Your task to perform on an android device: uninstall "Airtel Thanks" Image 0: 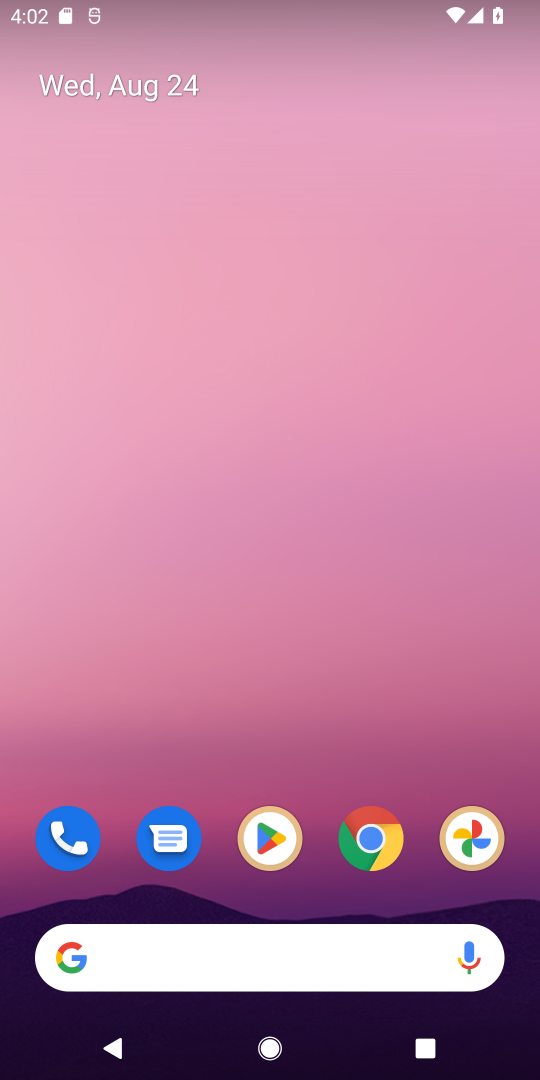
Step 0: press home button
Your task to perform on an android device: uninstall "Airtel Thanks" Image 1: 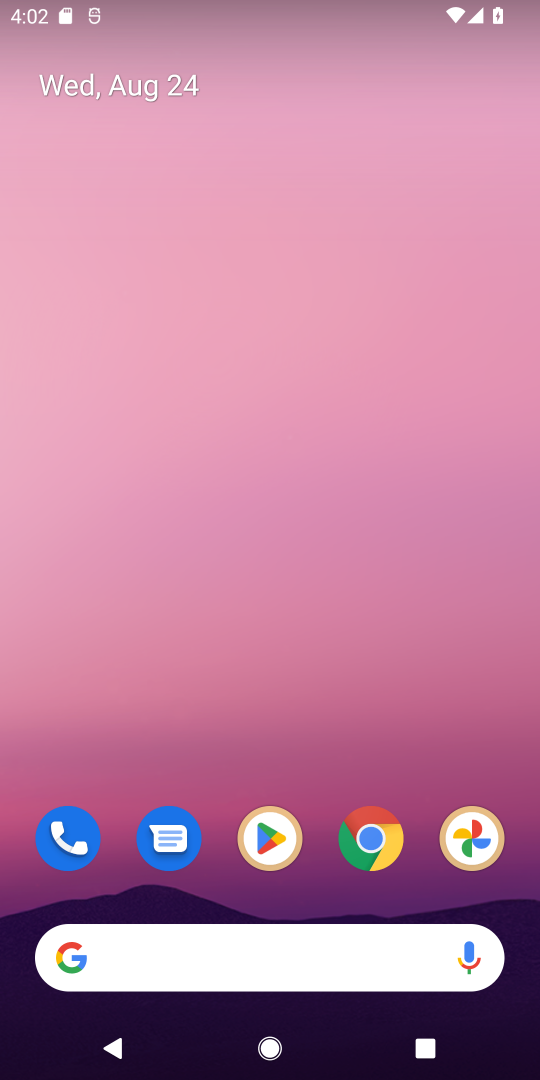
Step 1: click (264, 827)
Your task to perform on an android device: uninstall "Airtel Thanks" Image 2: 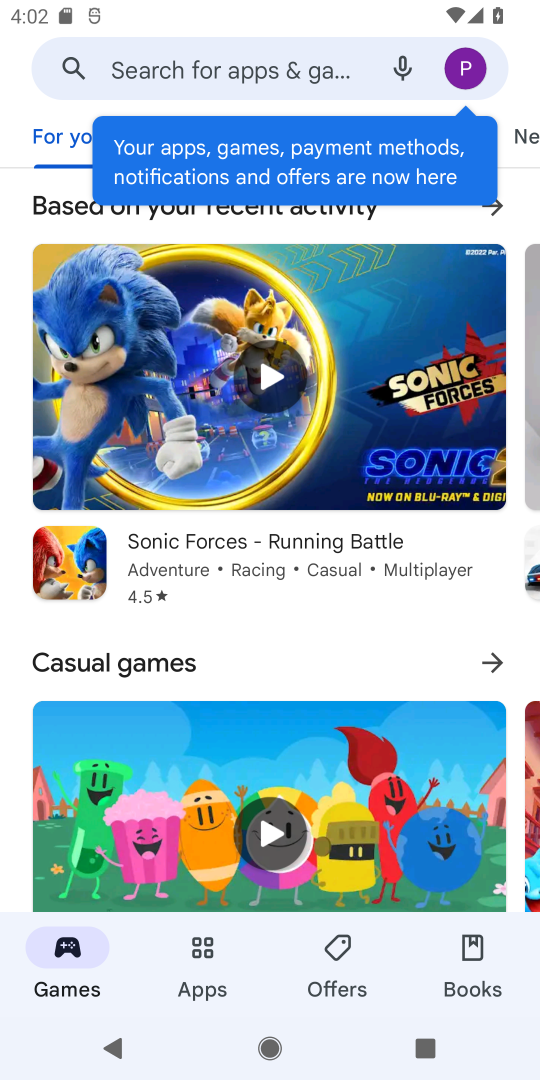
Step 2: click (182, 51)
Your task to perform on an android device: uninstall "Airtel Thanks" Image 3: 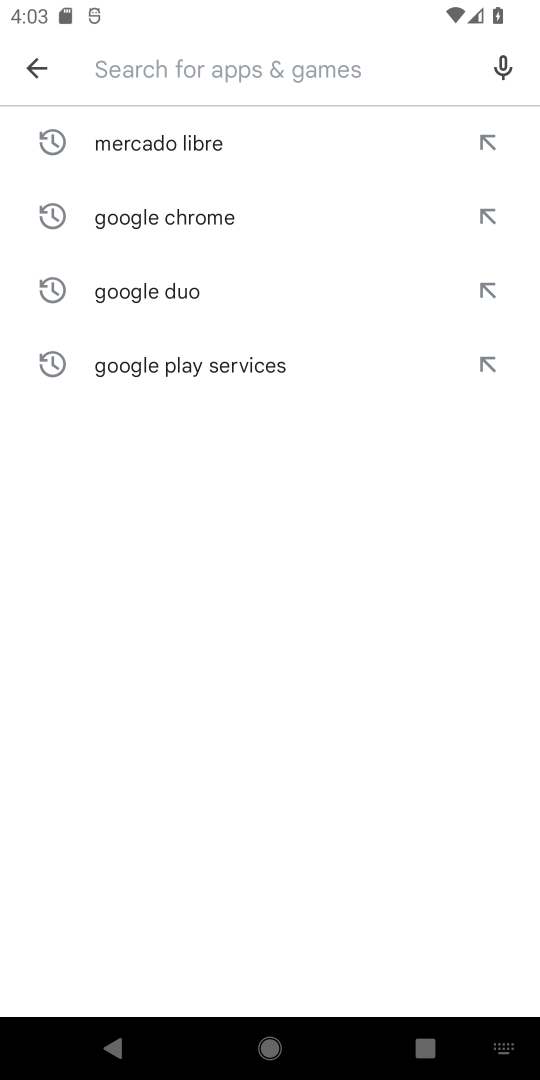
Step 3: type "Airtel Thanks"
Your task to perform on an android device: uninstall "Airtel Thanks" Image 4: 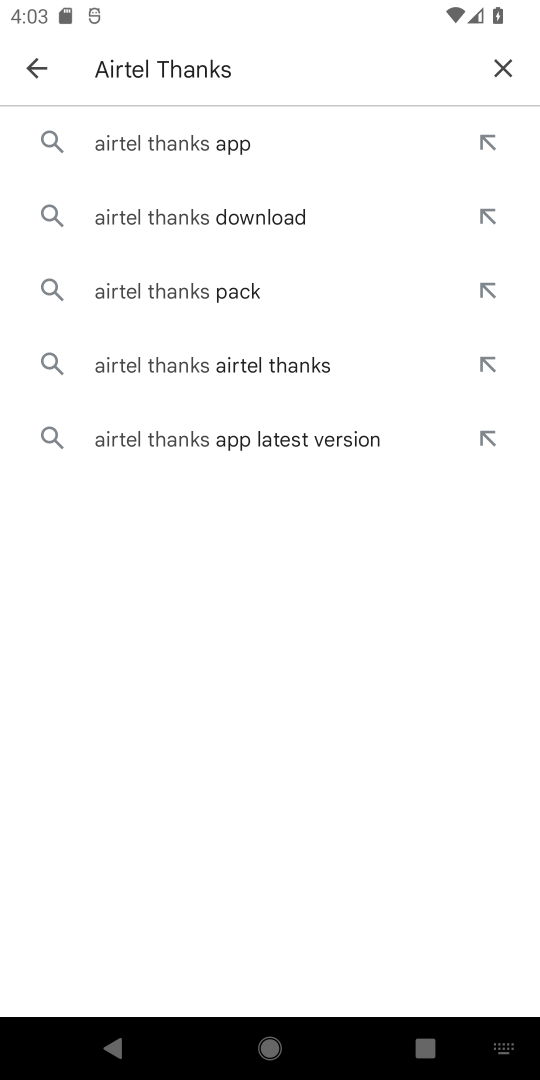
Step 4: click (257, 139)
Your task to perform on an android device: uninstall "Airtel Thanks" Image 5: 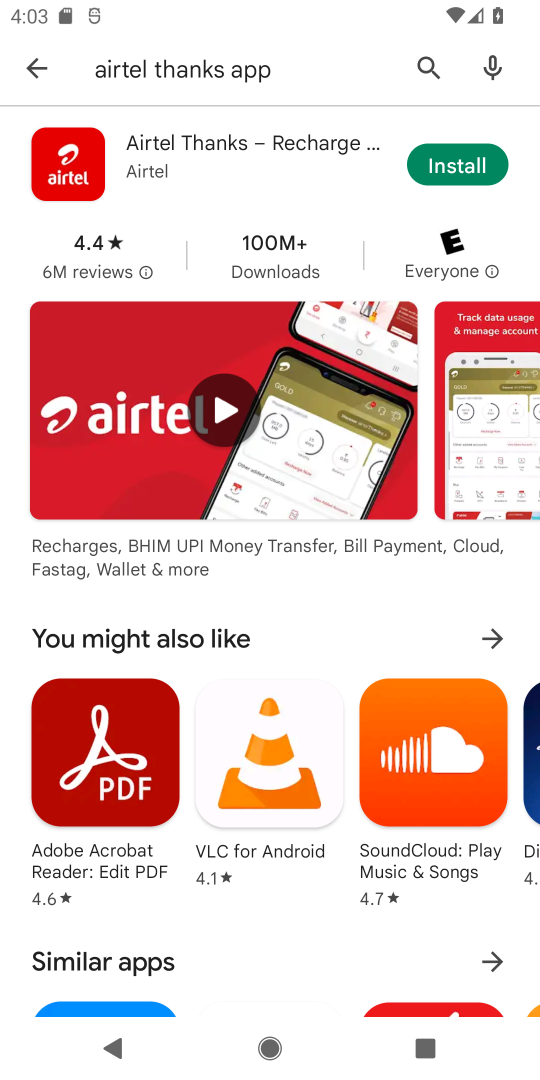
Step 5: task complete